Your task to perform on an android device: Open internet settings Image 0: 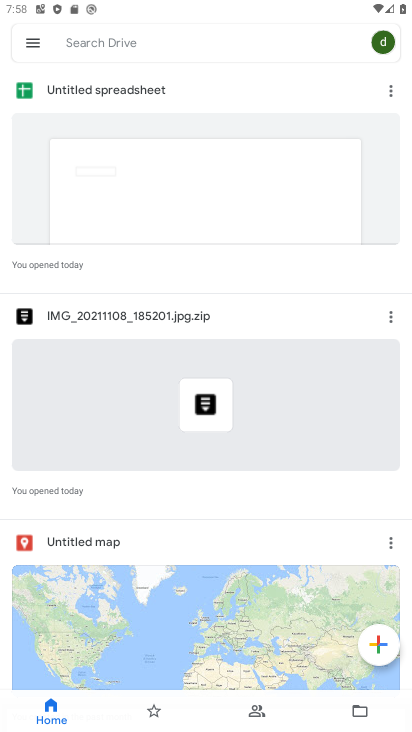
Step 0: press home button
Your task to perform on an android device: Open internet settings Image 1: 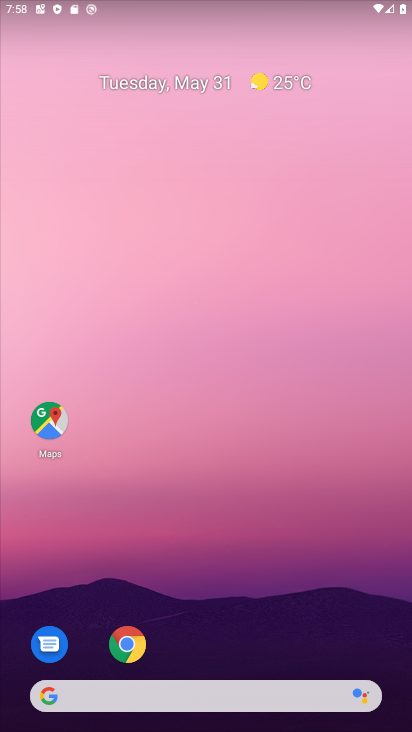
Step 1: drag from (244, 716) to (220, 111)
Your task to perform on an android device: Open internet settings Image 2: 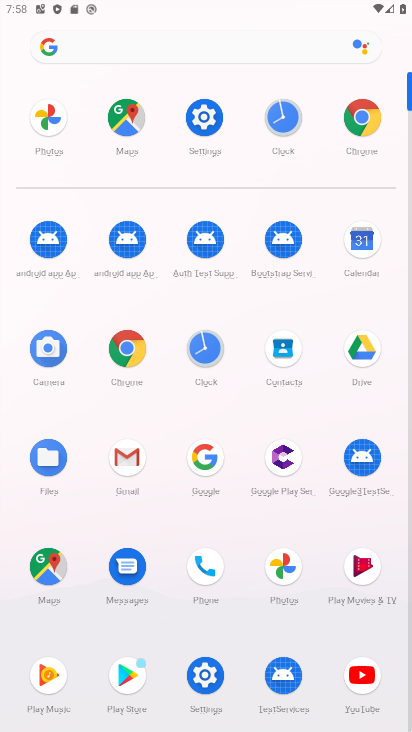
Step 2: click (206, 130)
Your task to perform on an android device: Open internet settings Image 3: 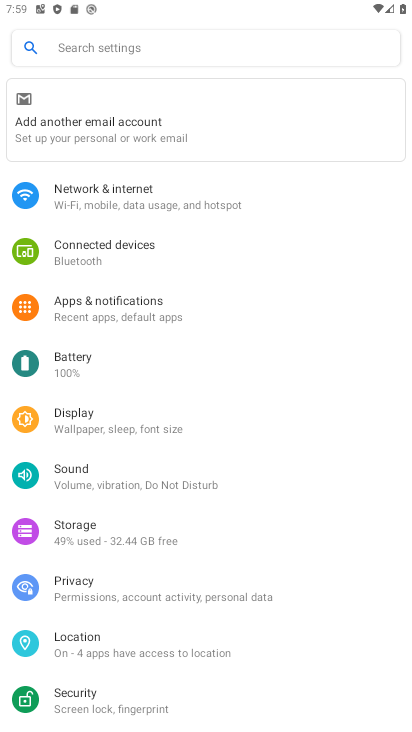
Step 3: click (105, 195)
Your task to perform on an android device: Open internet settings Image 4: 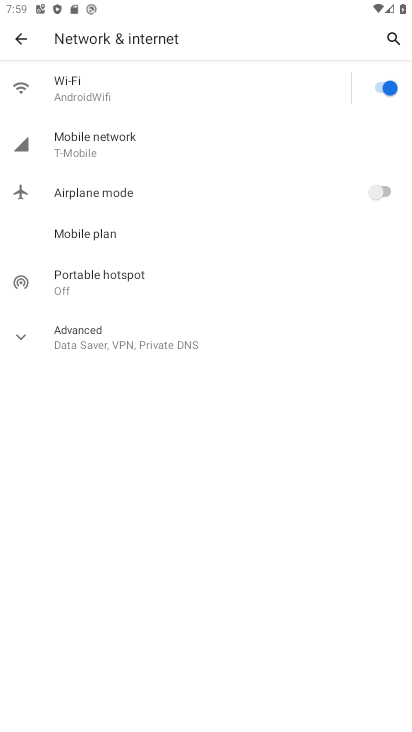
Step 4: task complete